Your task to perform on an android device: Go to location settings Image 0: 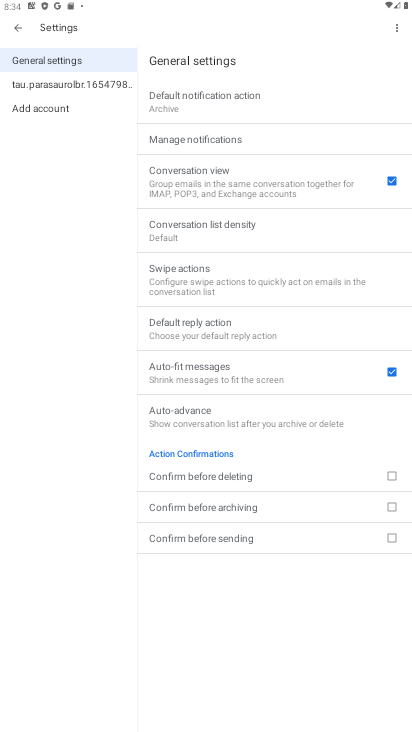
Step 0: press home button
Your task to perform on an android device: Go to location settings Image 1: 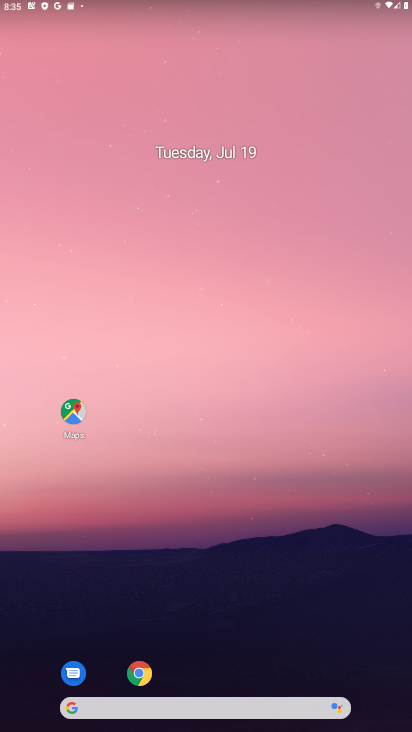
Step 1: drag from (211, 652) to (231, 182)
Your task to perform on an android device: Go to location settings Image 2: 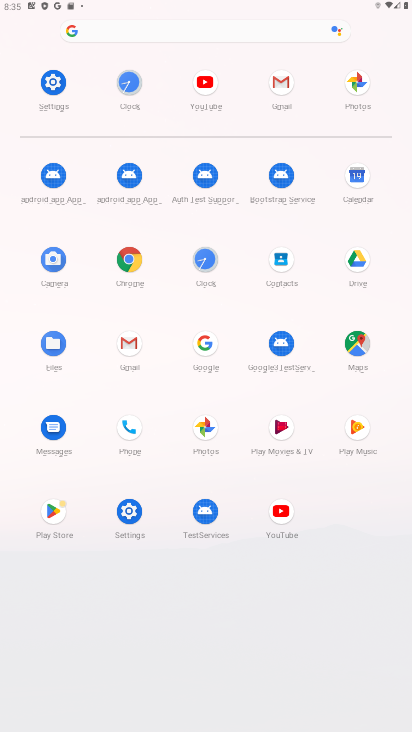
Step 2: click (72, 94)
Your task to perform on an android device: Go to location settings Image 3: 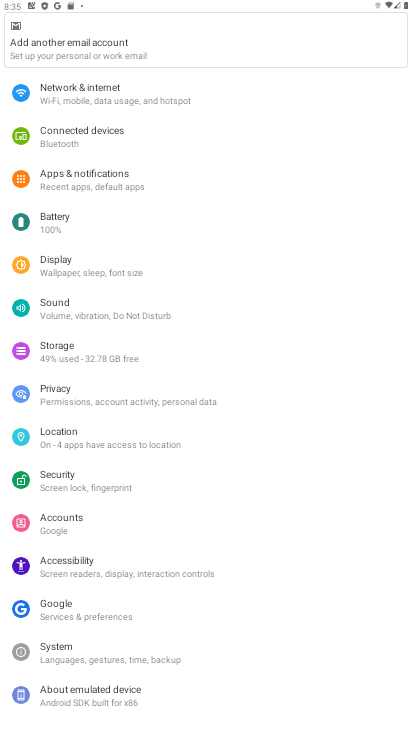
Step 3: click (85, 435)
Your task to perform on an android device: Go to location settings Image 4: 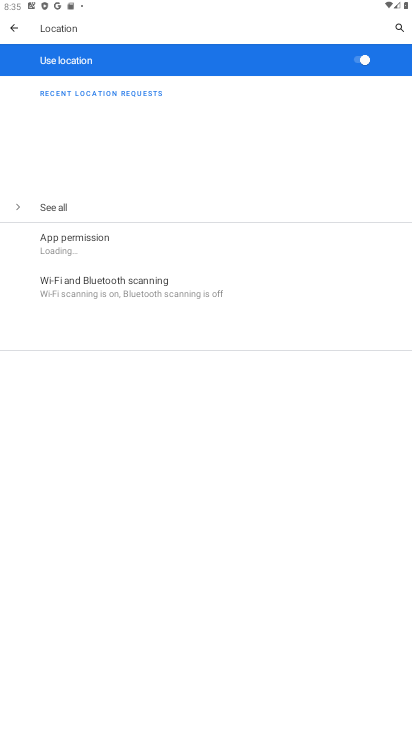
Step 4: task complete